Your task to perform on an android device: Add "dell alienware" to the cart on target, then select checkout. Image 0: 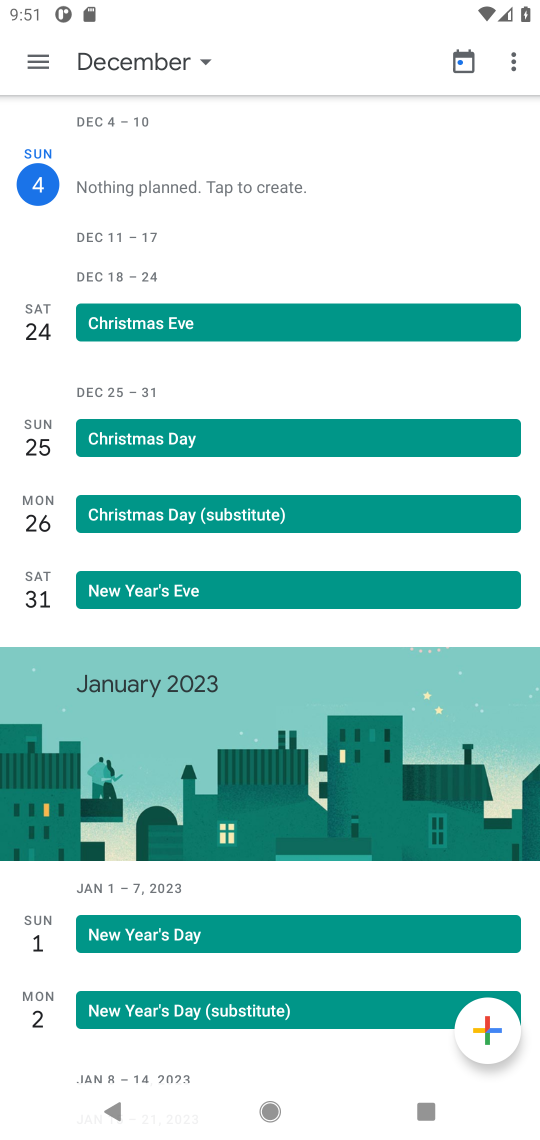
Step 0: press home button
Your task to perform on an android device: Add "dell alienware" to the cart on target, then select checkout. Image 1: 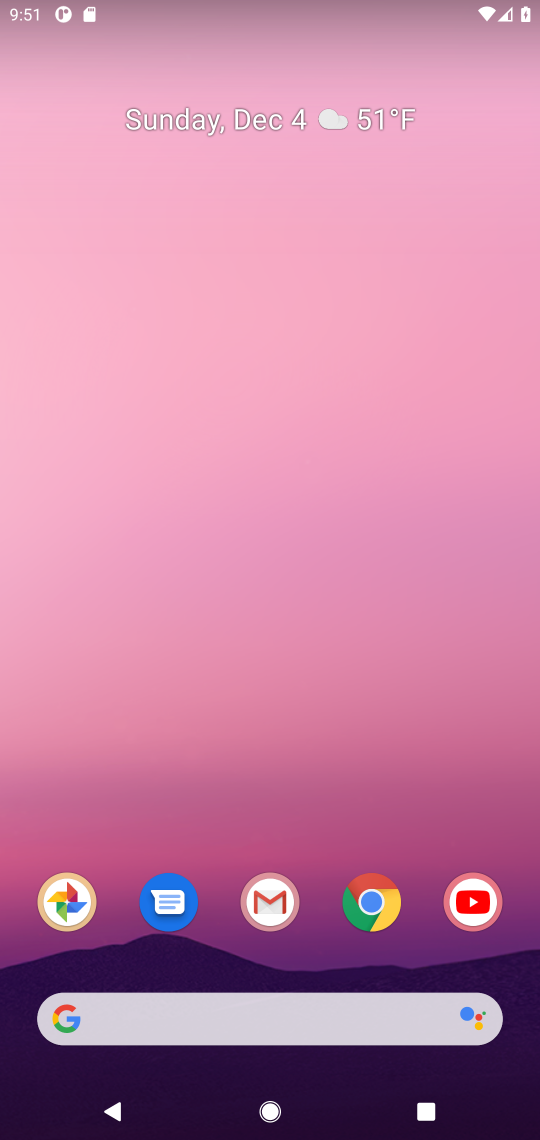
Step 1: click (372, 891)
Your task to perform on an android device: Add "dell alienware" to the cart on target, then select checkout. Image 2: 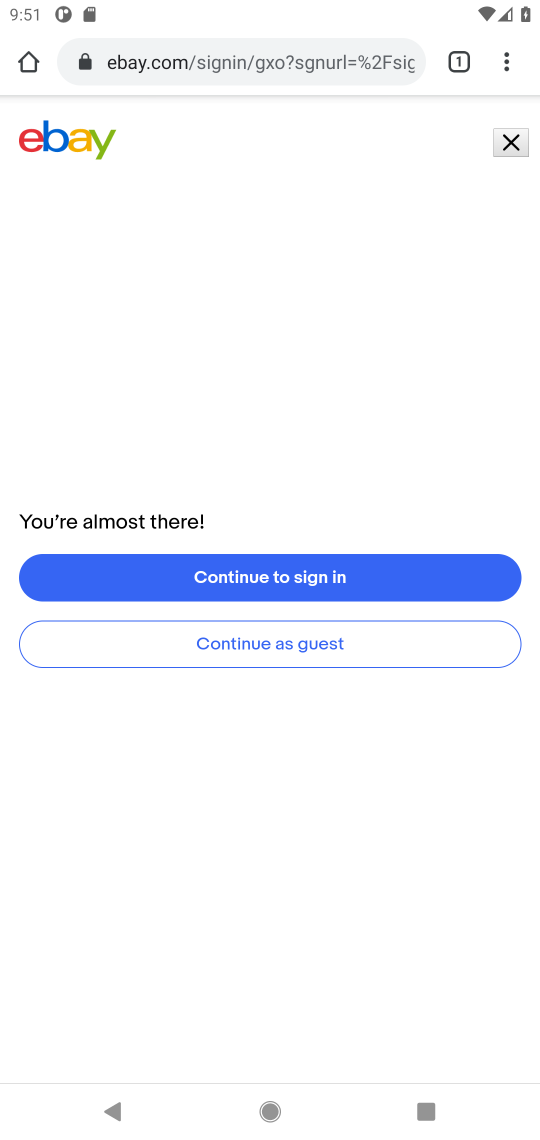
Step 2: click (166, 53)
Your task to perform on an android device: Add "dell alienware" to the cart on target, then select checkout. Image 3: 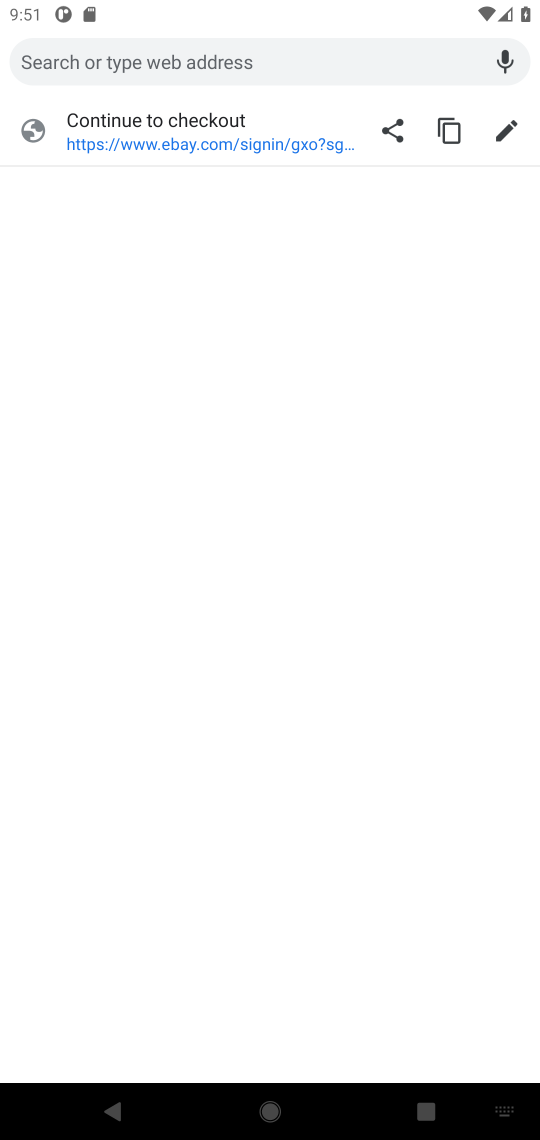
Step 3: type "target"
Your task to perform on an android device: Add "dell alienware" to the cart on target, then select checkout. Image 4: 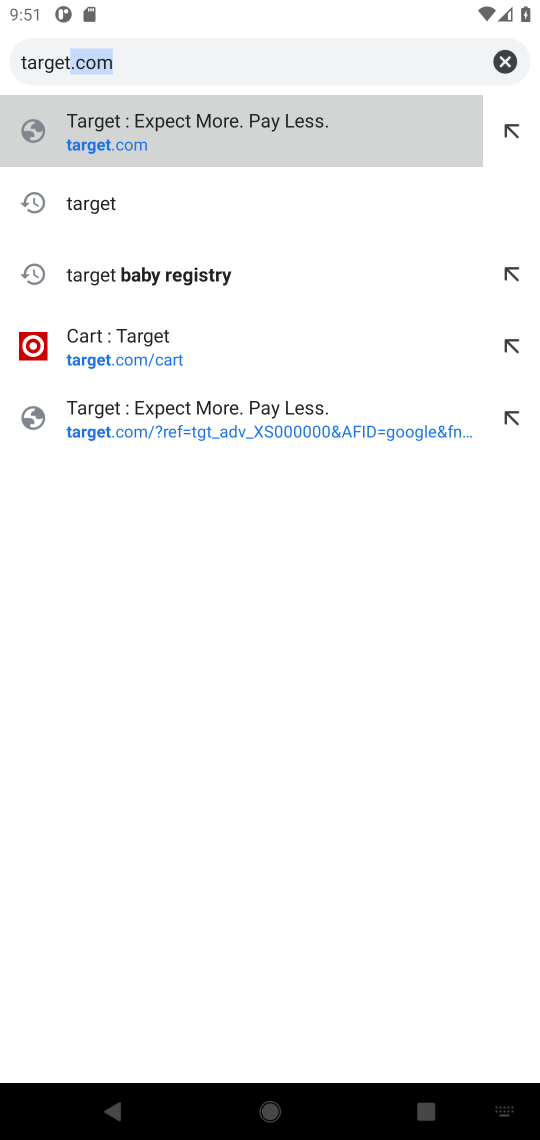
Step 4: click (211, 367)
Your task to perform on an android device: Add "dell alienware" to the cart on target, then select checkout. Image 5: 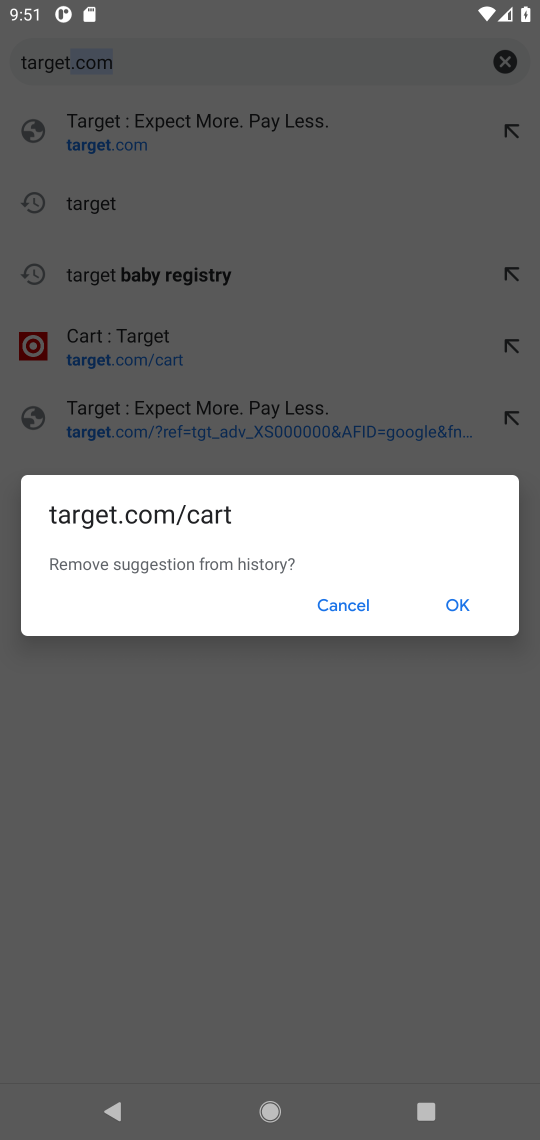
Step 5: click (464, 619)
Your task to perform on an android device: Add "dell alienware" to the cart on target, then select checkout. Image 6: 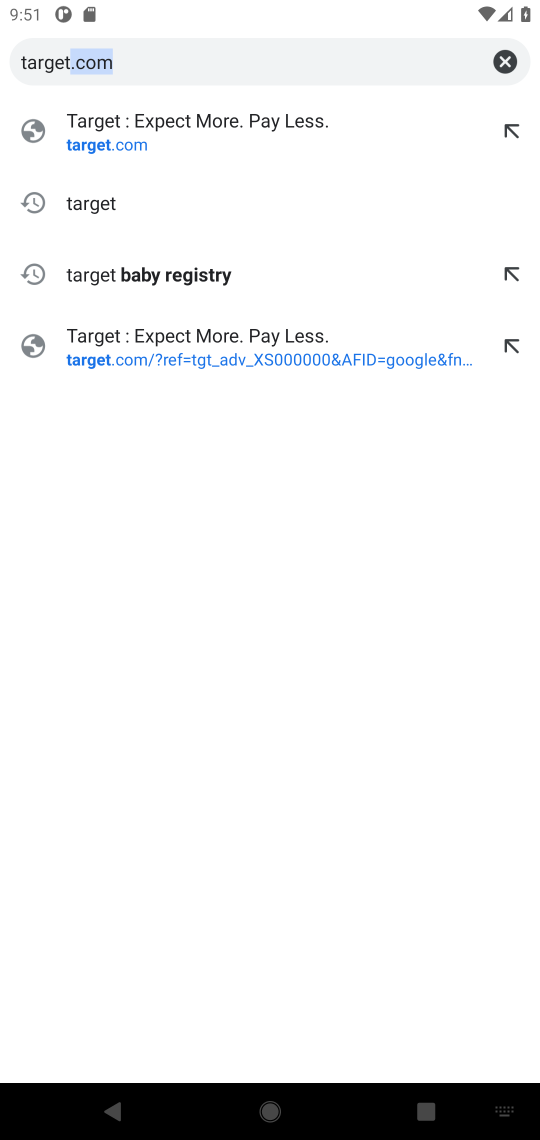
Step 6: click (197, 353)
Your task to perform on an android device: Add "dell alienware" to the cart on target, then select checkout. Image 7: 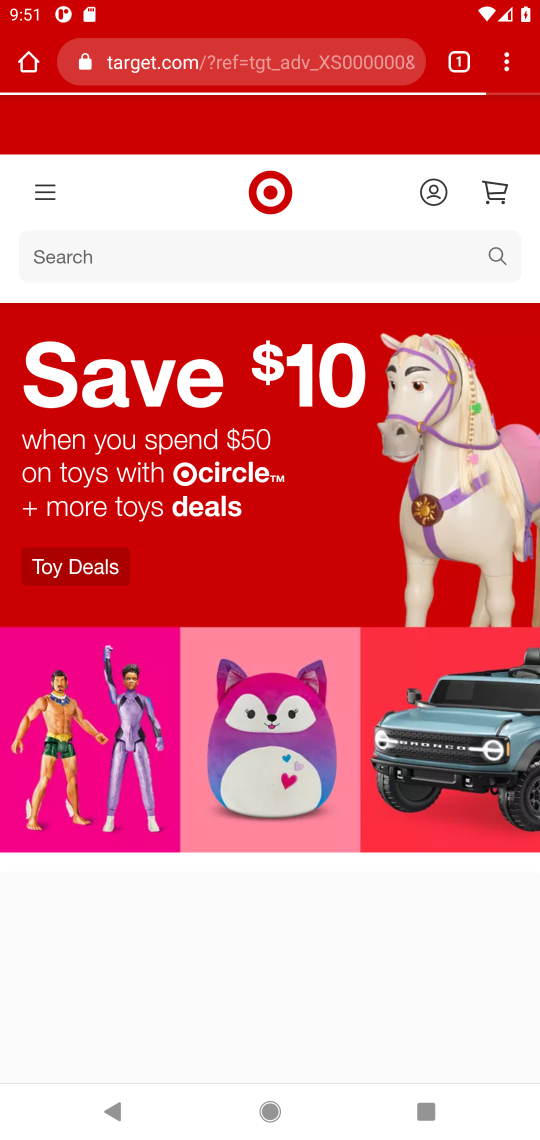
Step 7: click (410, 253)
Your task to perform on an android device: Add "dell alienware" to the cart on target, then select checkout. Image 8: 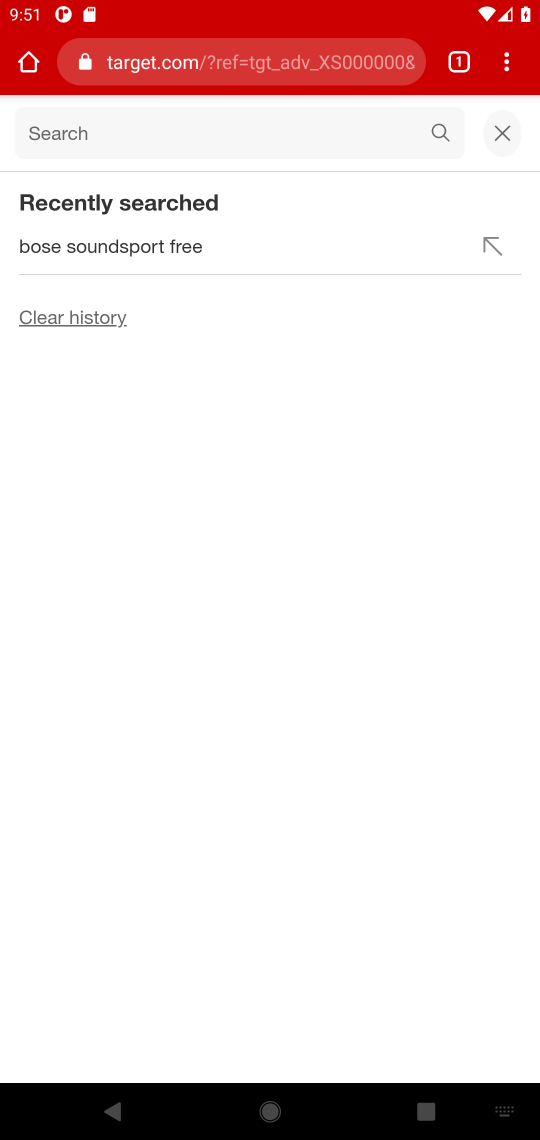
Step 8: type "dell alienware"
Your task to perform on an android device: Add "dell alienware" to the cart on target, then select checkout. Image 9: 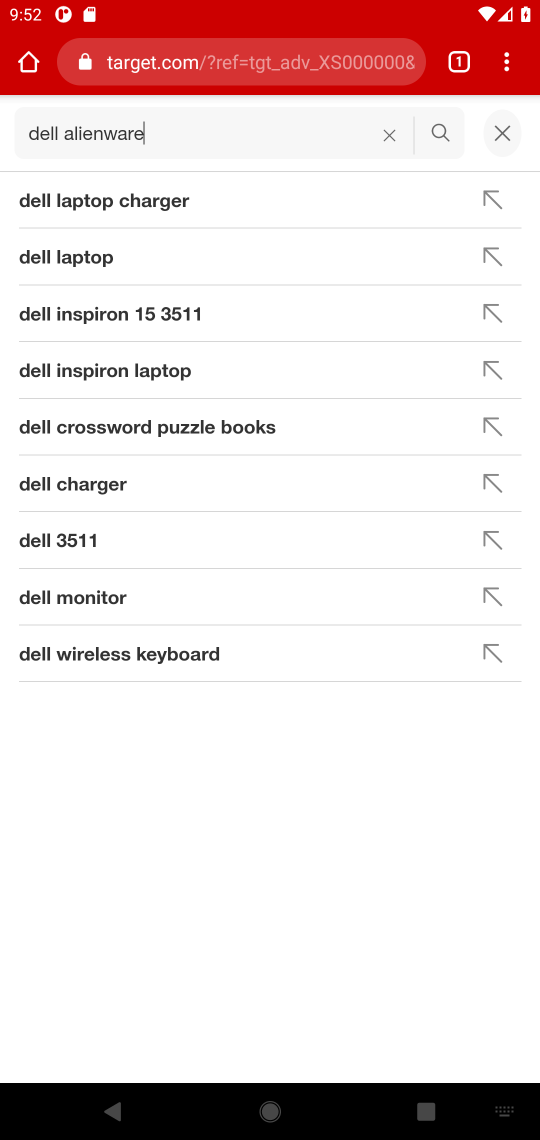
Step 9: click (448, 138)
Your task to perform on an android device: Add "dell alienware" to the cart on target, then select checkout. Image 10: 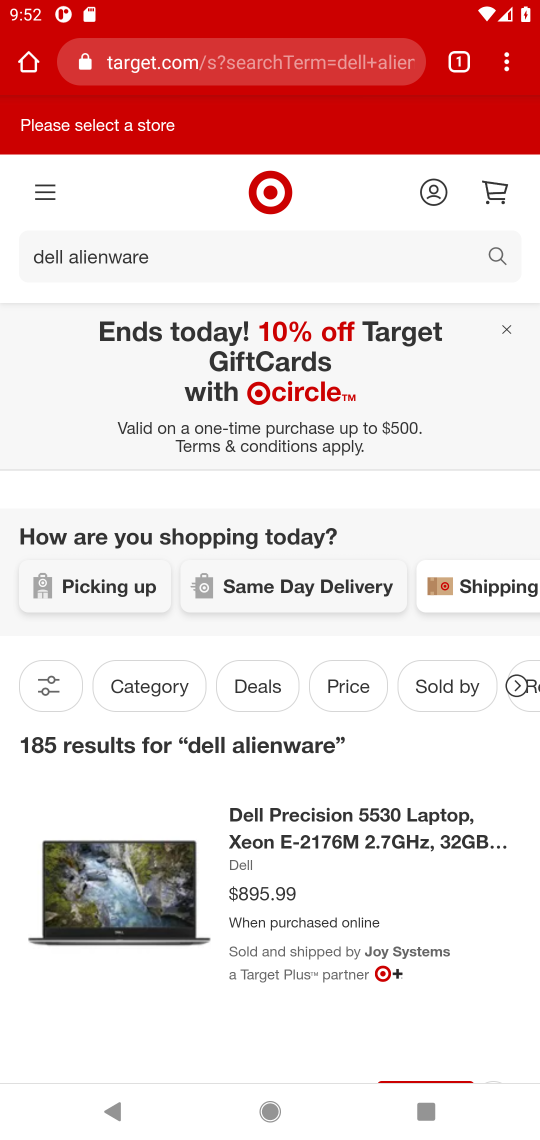
Step 10: task complete